Your task to perform on an android device: Do I have any events today? Image 0: 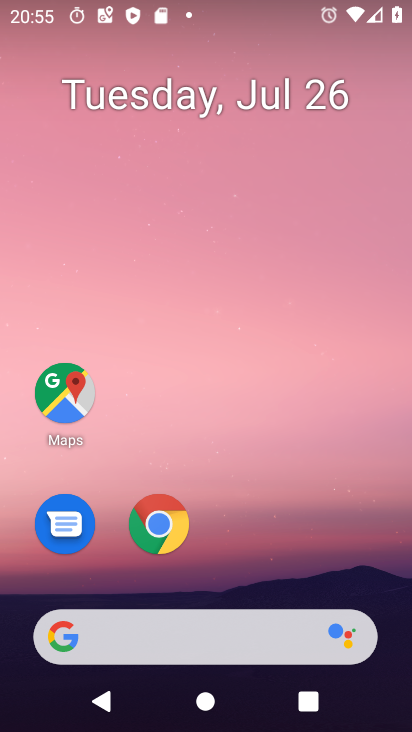
Step 0: drag from (268, 553) to (312, 21)
Your task to perform on an android device: Do I have any events today? Image 1: 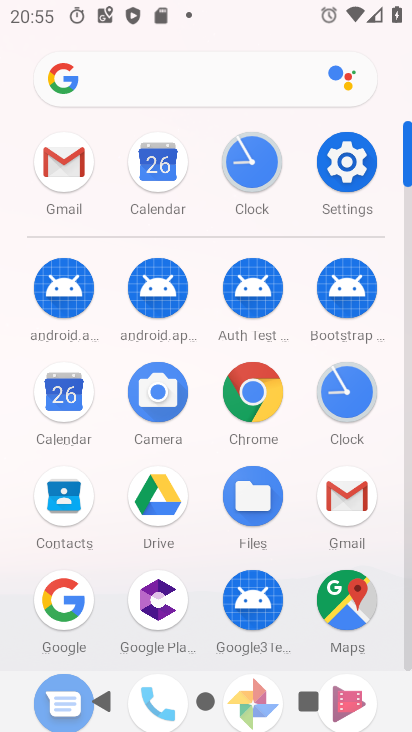
Step 1: click (159, 171)
Your task to perform on an android device: Do I have any events today? Image 2: 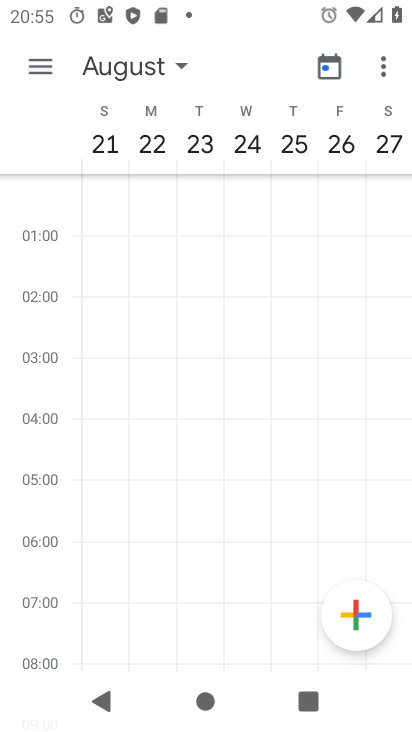
Step 2: task complete